Your task to perform on an android device: find snoozed emails in the gmail app Image 0: 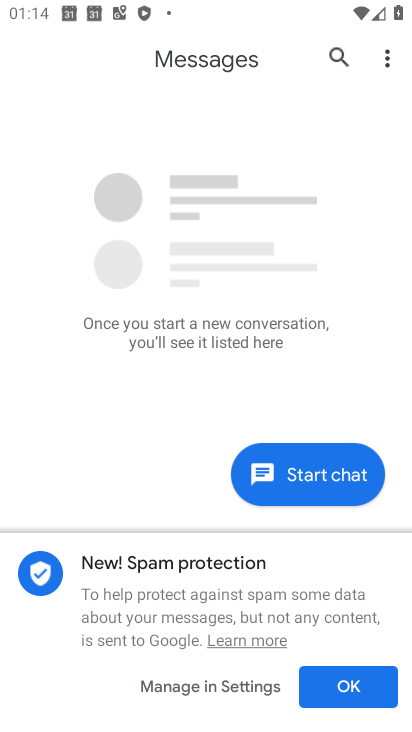
Step 0: press home button
Your task to perform on an android device: find snoozed emails in the gmail app Image 1: 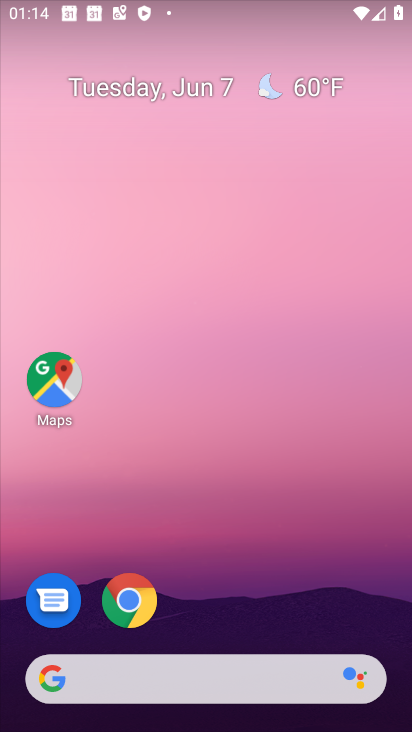
Step 1: drag from (238, 710) to (227, 191)
Your task to perform on an android device: find snoozed emails in the gmail app Image 2: 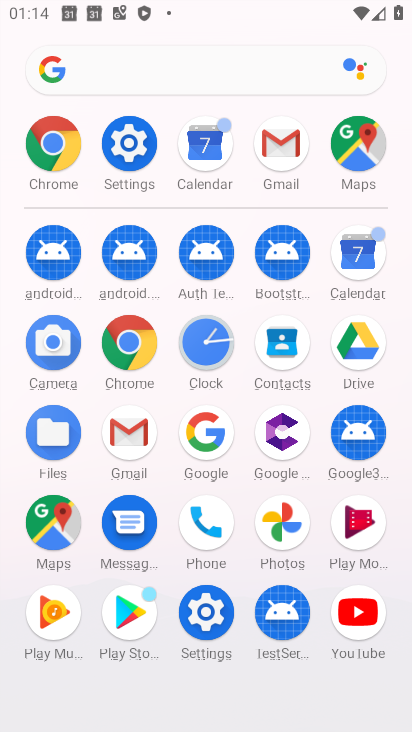
Step 2: click (132, 441)
Your task to perform on an android device: find snoozed emails in the gmail app Image 3: 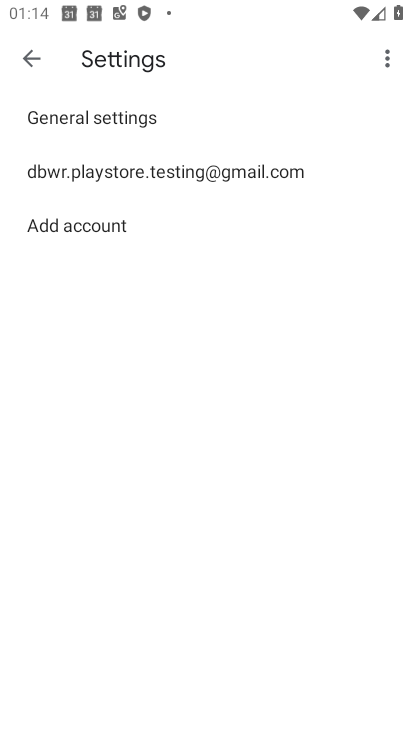
Step 3: click (30, 51)
Your task to perform on an android device: find snoozed emails in the gmail app Image 4: 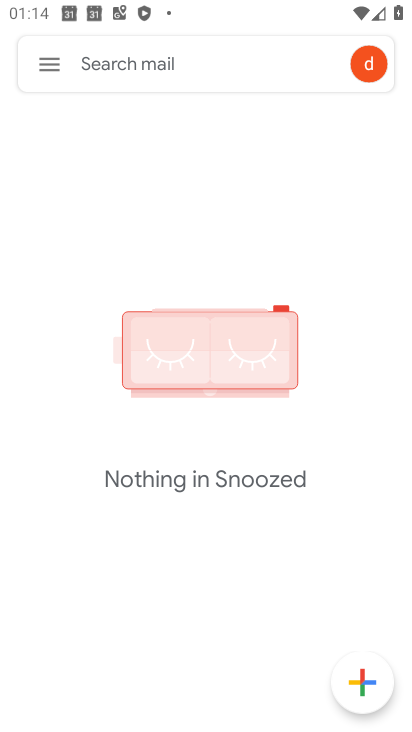
Step 4: click (44, 64)
Your task to perform on an android device: find snoozed emails in the gmail app Image 5: 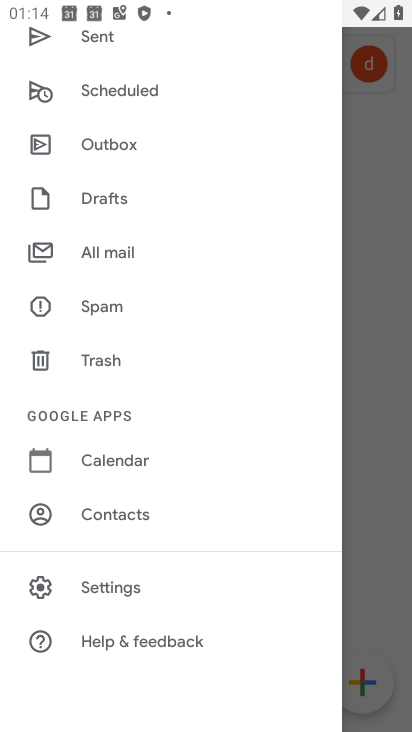
Step 5: drag from (197, 149) to (181, 540)
Your task to perform on an android device: find snoozed emails in the gmail app Image 6: 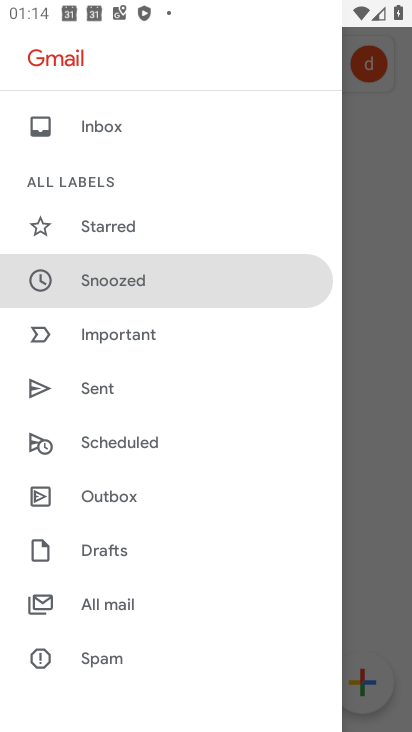
Step 6: click (121, 280)
Your task to perform on an android device: find snoozed emails in the gmail app Image 7: 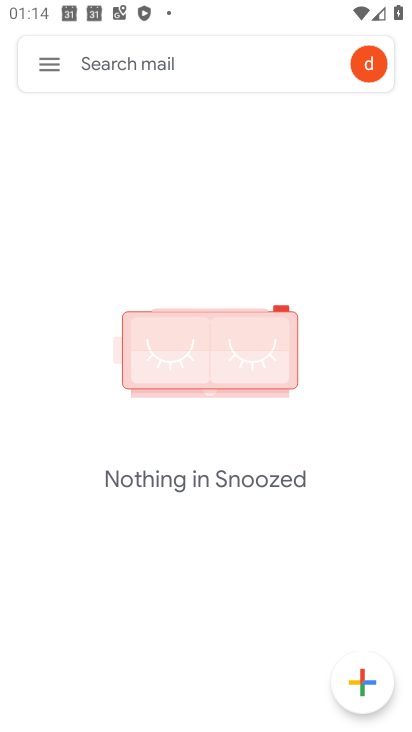
Step 7: task complete